Your task to perform on an android device: clear all cookies in the chrome app Image 0: 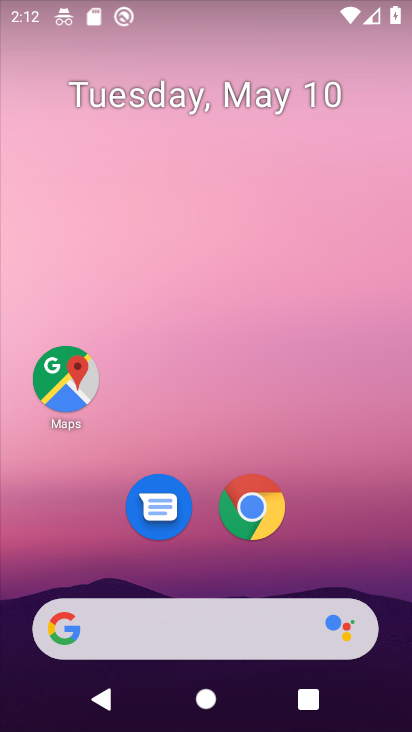
Step 0: click (249, 510)
Your task to perform on an android device: clear all cookies in the chrome app Image 1: 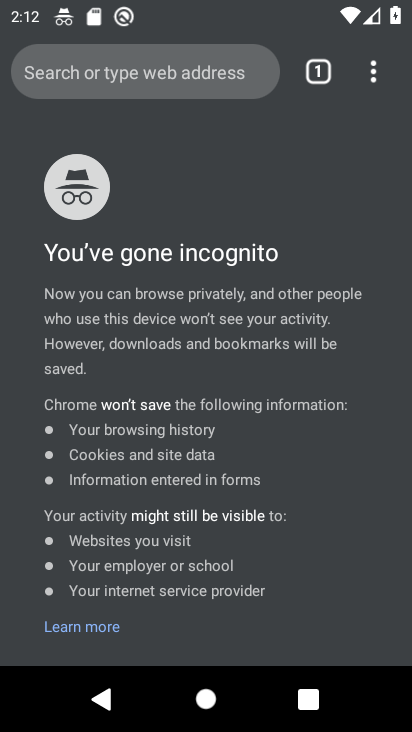
Step 1: click (376, 82)
Your task to perform on an android device: clear all cookies in the chrome app Image 2: 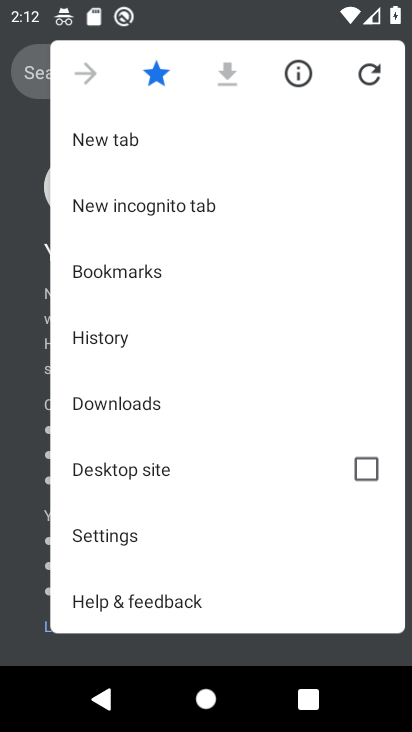
Step 2: click (127, 345)
Your task to perform on an android device: clear all cookies in the chrome app Image 3: 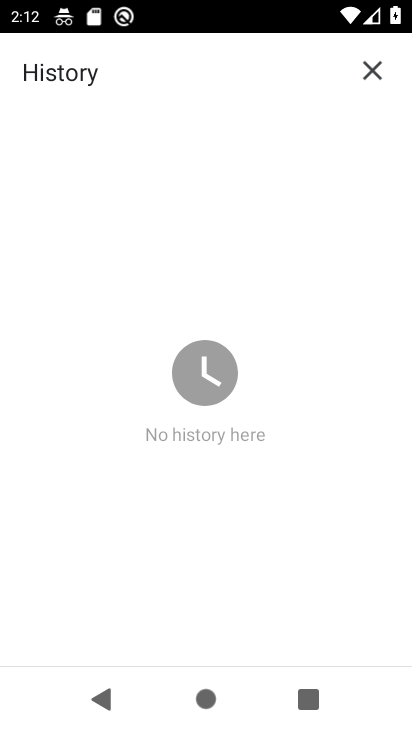
Step 3: task complete